Your task to perform on an android device: Open my contact list Image 0: 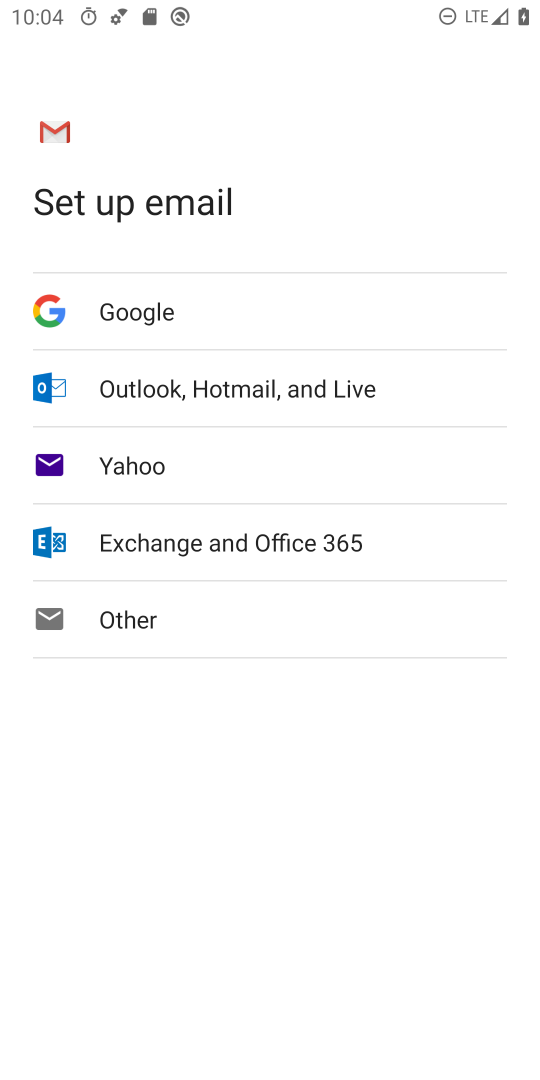
Step 0: press home button
Your task to perform on an android device: Open my contact list Image 1: 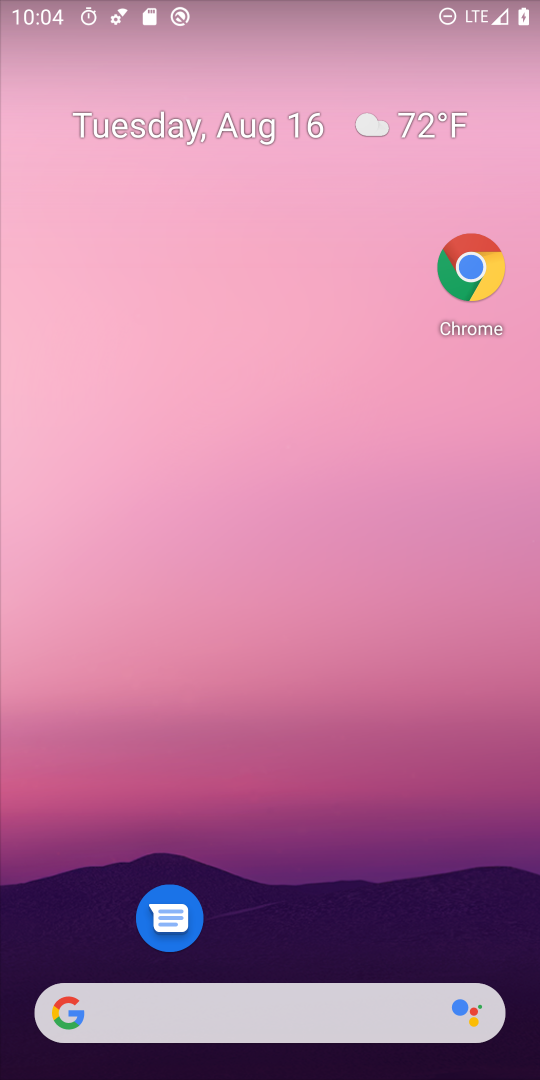
Step 1: drag from (346, 762) to (349, 86)
Your task to perform on an android device: Open my contact list Image 2: 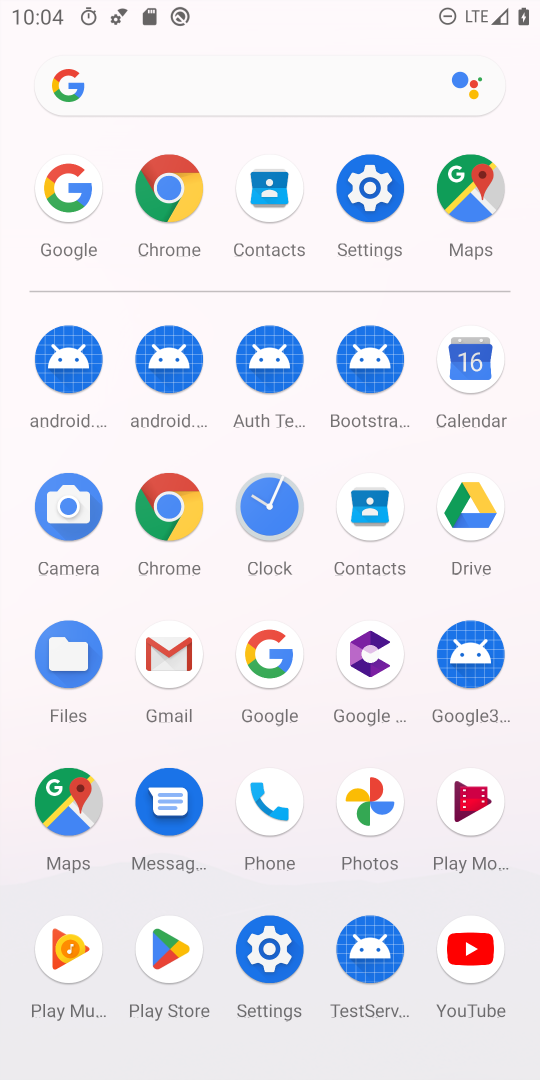
Step 2: click (373, 532)
Your task to perform on an android device: Open my contact list Image 3: 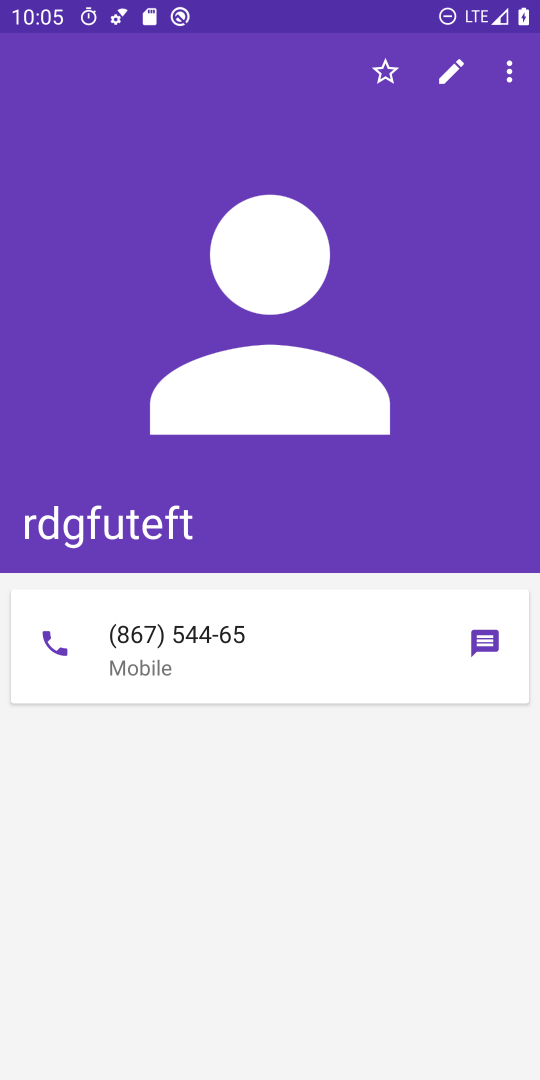
Step 3: task complete